Your task to perform on an android device: change timer sound Image 0: 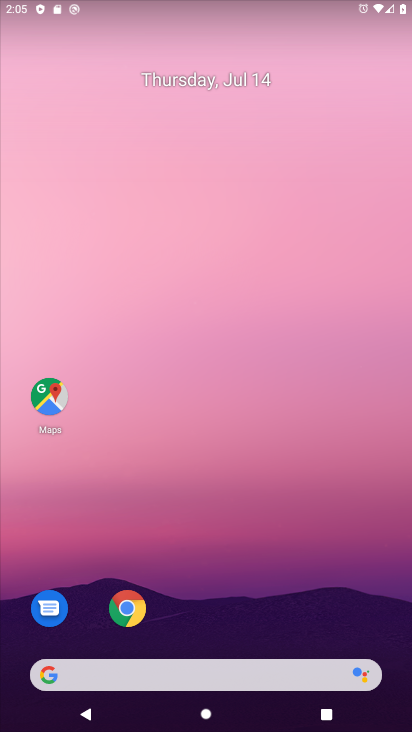
Step 0: drag from (233, 726) to (221, 99)
Your task to perform on an android device: change timer sound Image 1: 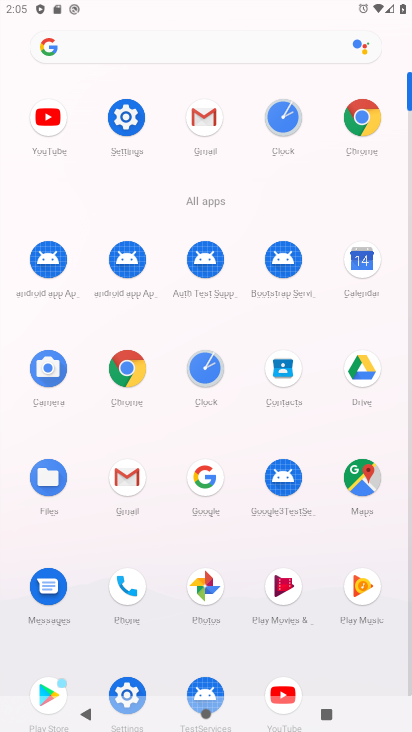
Step 1: click (206, 365)
Your task to perform on an android device: change timer sound Image 2: 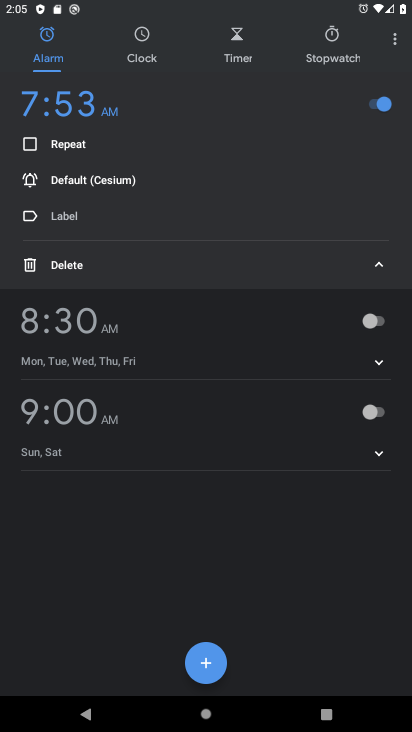
Step 2: click (396, 45)
Your task to perform on an android device: change timer sound Image 3: 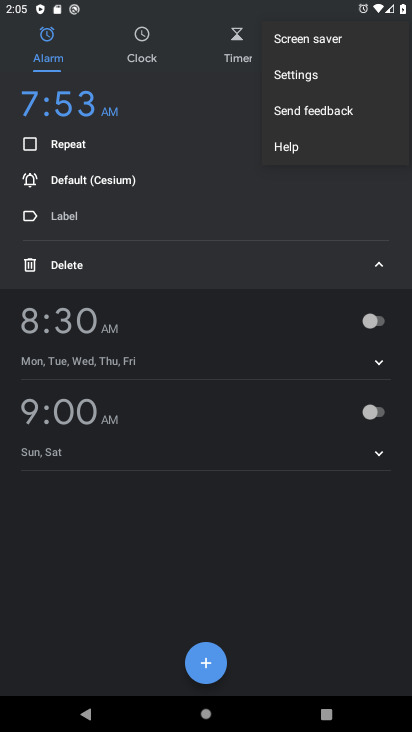
Step 3: click (282, 78)
Your task to perform on an android device: change timer sound Image 4: 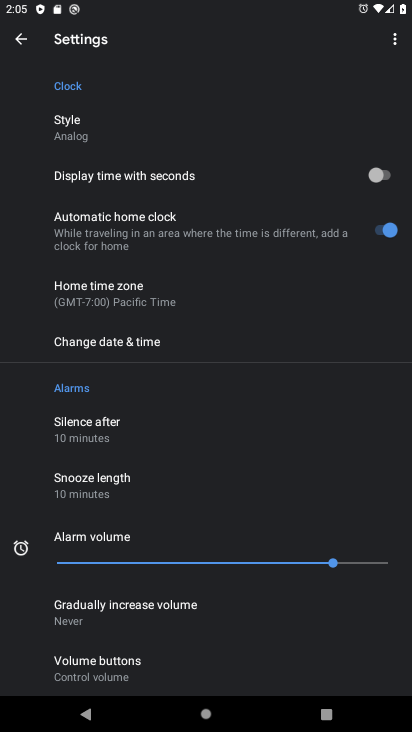
Step 4: drag from (201, 664) to (186, 282)
Your task to perform on an android device: change timer sound Image 5: 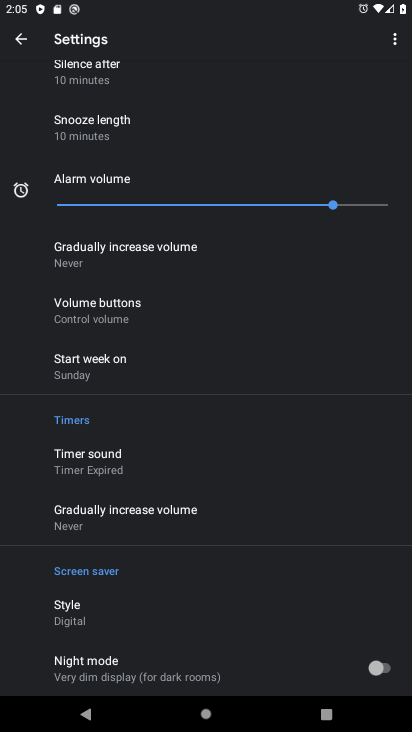
Step 5: click (92, 460)
Your task to perform on an android device: change timer sound Image 6: 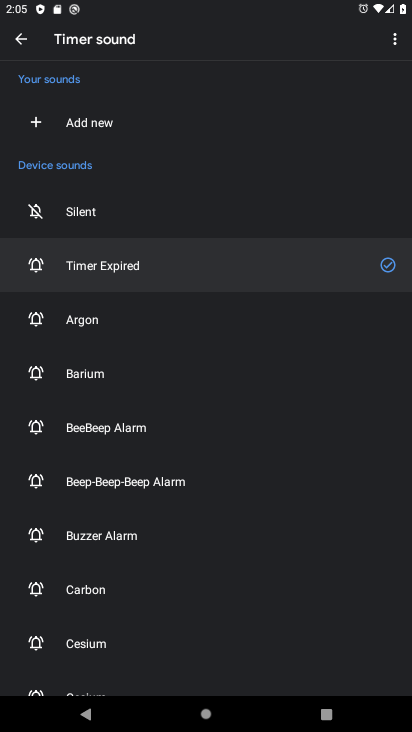
Step 6: click (78, 588)
Your task to perform on an android device: change timer sound Image 7: 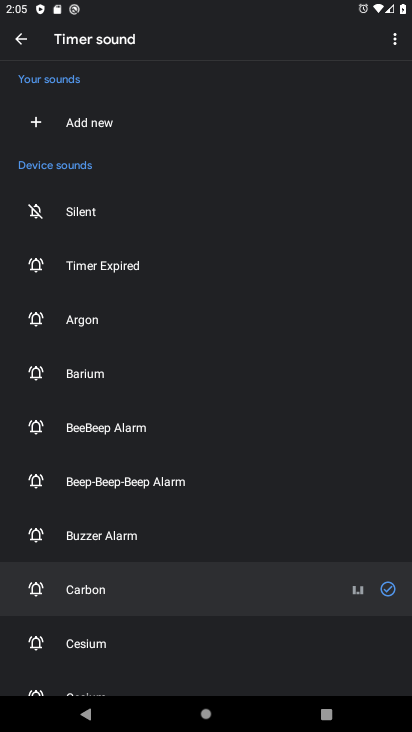
Step 7: task complete